Your task to perform on an android device: Go to privacy settings Image 0: 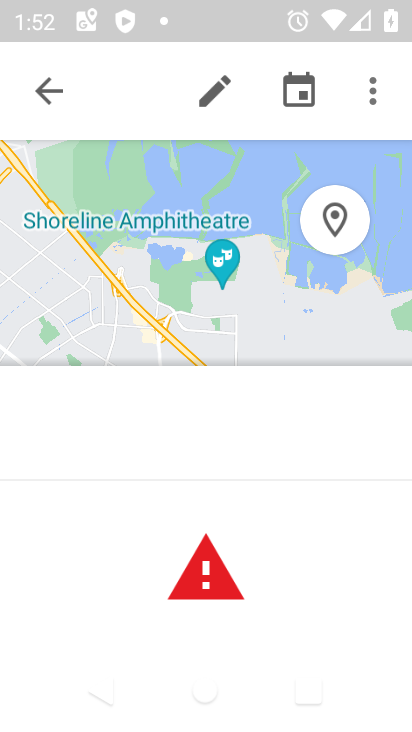
Step 0: press home button
Your task to perform on an android device: Go to privacy settings Image 1: 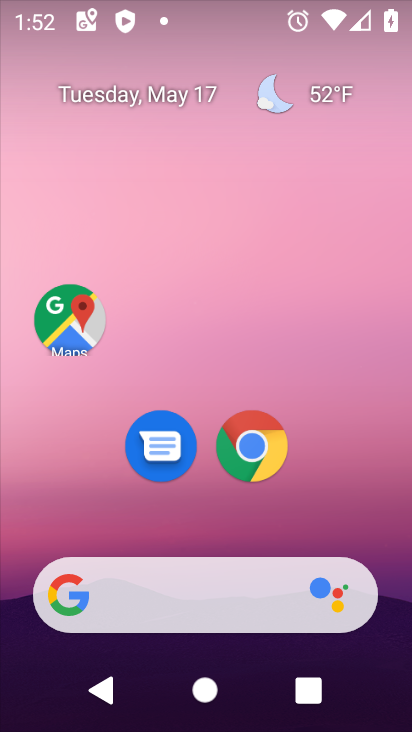
Step 1: drag from (180, 486) to (271, 189)
Your task to perform on an android device: Go to privacy settings Image 2: 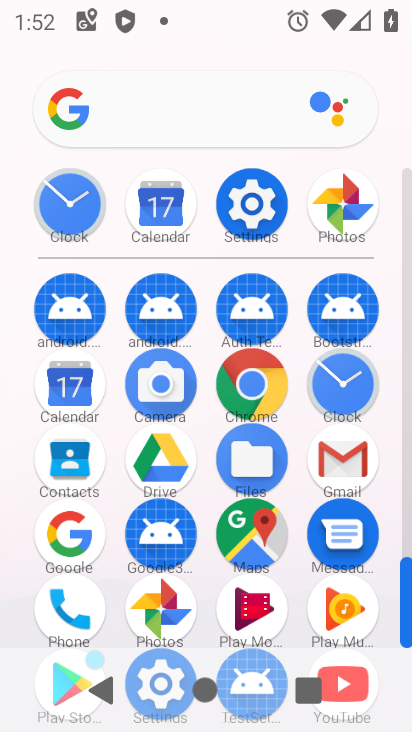
Step 2: drag from (220, 542) to (312, 215)
Your task to perform on an android device: Go to privacy settings Image 3: 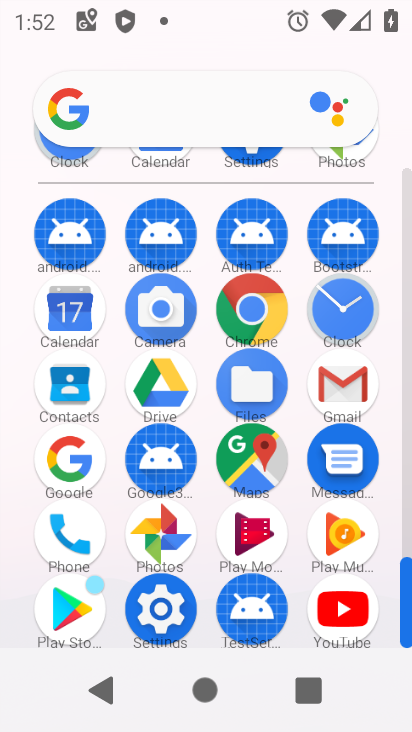
Step 3: click (161, 598)
Your task to perform on an android device: Go to privacy settings Image 4: 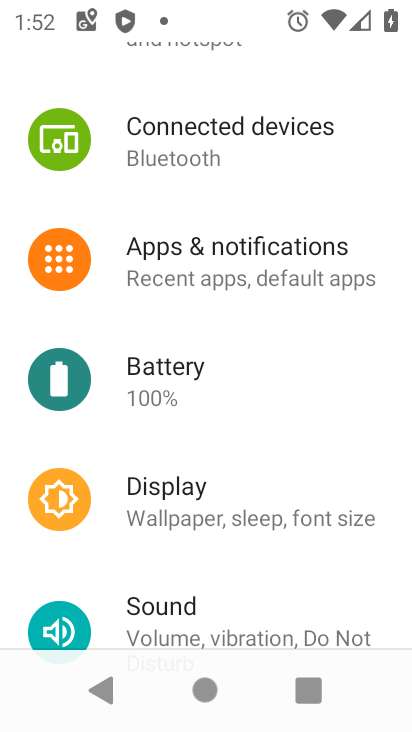
Step 4: drag from (256, 190) to (339, 169)
Your task to perform on an android device: Go to privacy settings Image 5: 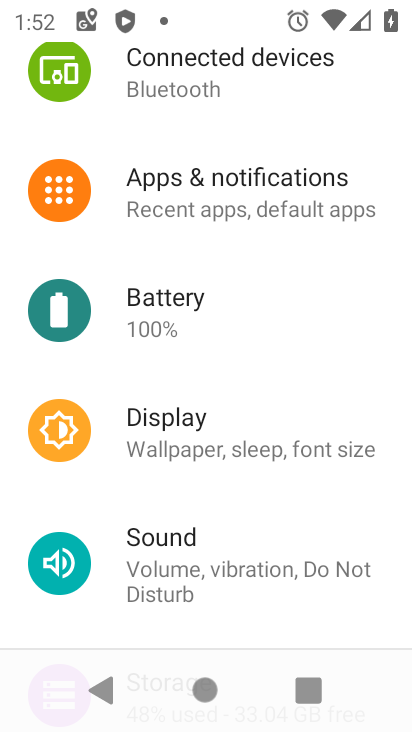
Step 5: drag from (245, 576) to (316, 247)
Your task to perform on an android device: Go to privacy settings Image 6: 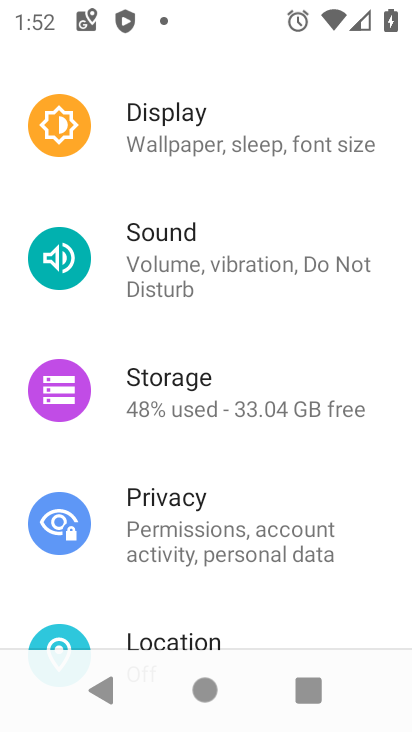
Step 6: click (215, 511)
Your task to perform on an android device: Go to privacy settings Image 7: 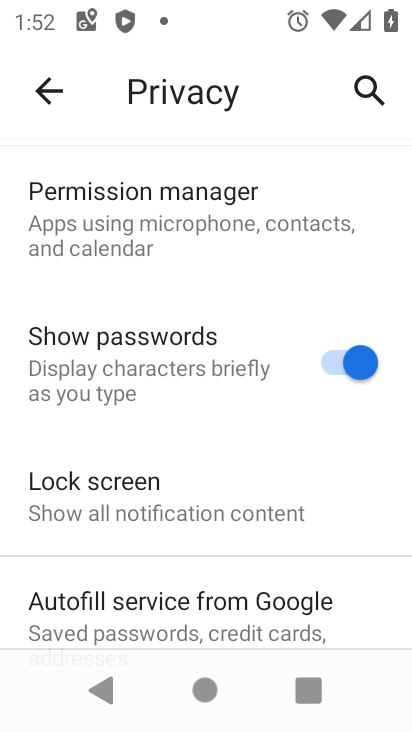
Step 7: task complete